Your task to perform on an android device: find snoozed emails in the gmail app Image 0: 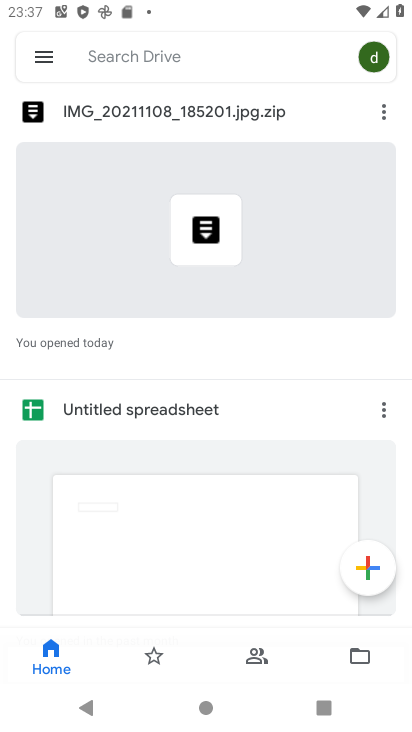
Step 0: press home button
Your task to perform on an android device: find snoozed emails in the gmail app Image 1: 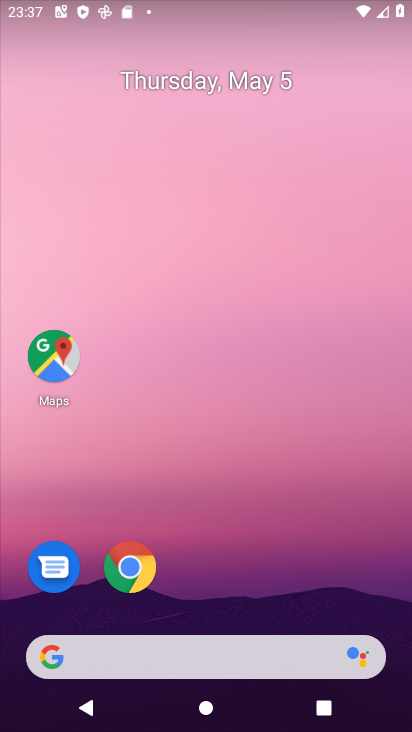
Step 1: drag from (225, 605) to (171, 138)
Your task to perform on an android device: find snoozed emails in the gmail app Image 2: 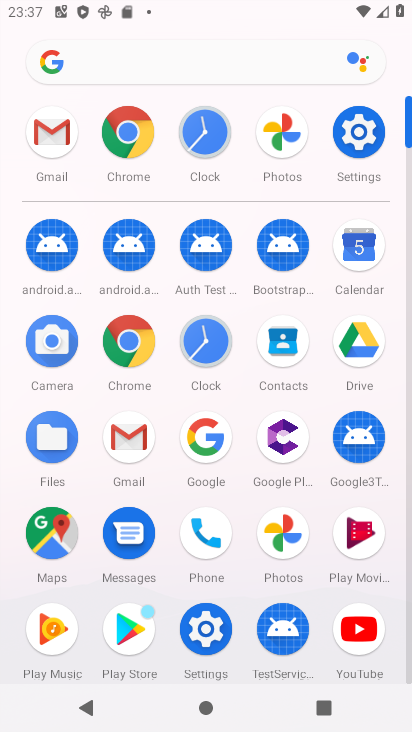
Step 2: click (65, 143)
Your task to perform on an android device: find snoozed emails in the gmail app Image 3: 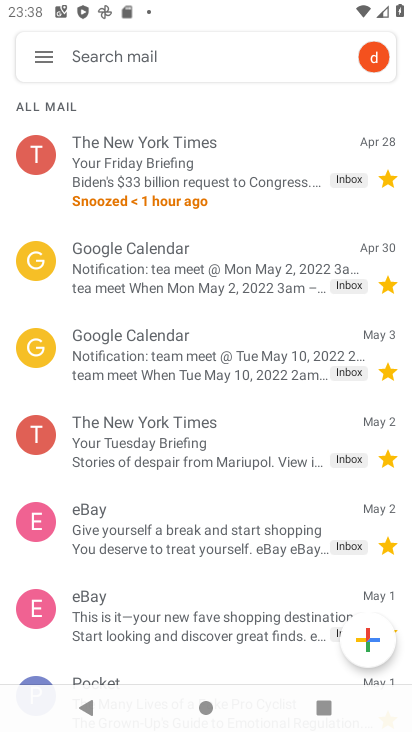
Step 3: click (37, 53)
Your task to perform on an android device: find snoozed emails in the gmail app Image 4: 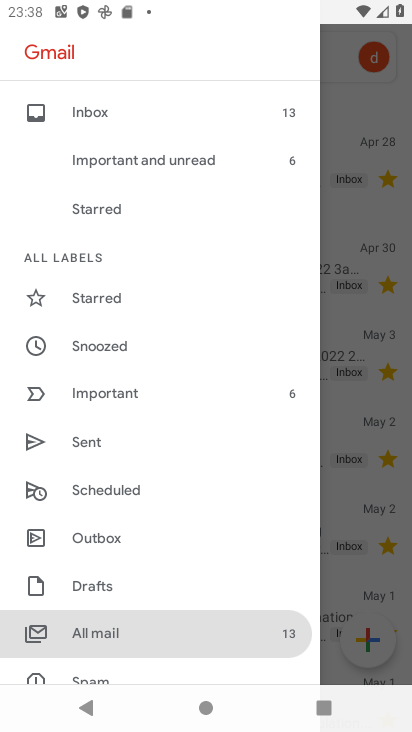
Step 4: click (75, 346)
Your task to perform on an android device: find snoozed emails in the gmail app Image 5: 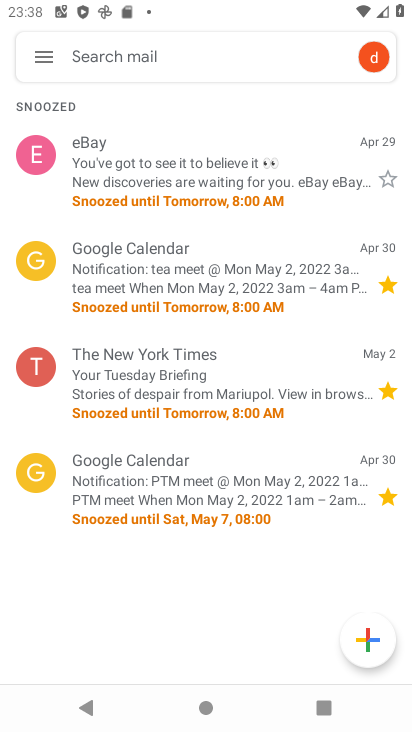
Step 5: task complete